Your task to perform on an android device: Open the map Image 0: 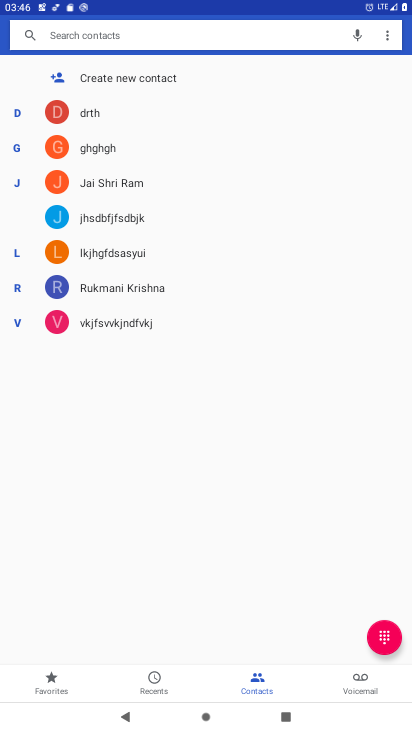
Step 0: press home button
Your task to perform on an android device: Open the map Image 1: 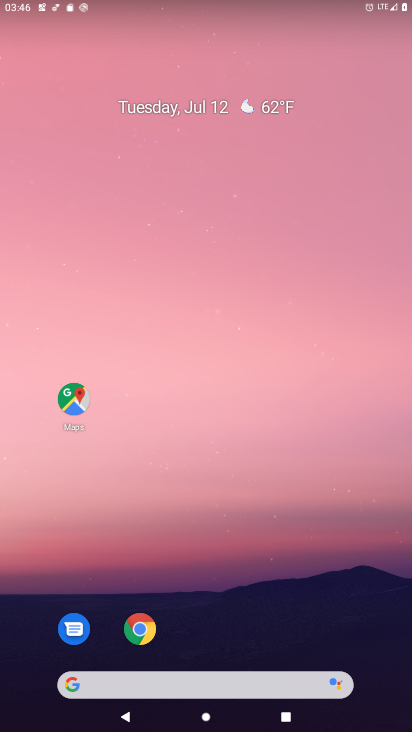
Step 1: drag from (201, 660) to (160, 51)
Your task to perform on an android device: Open the map Image 2: 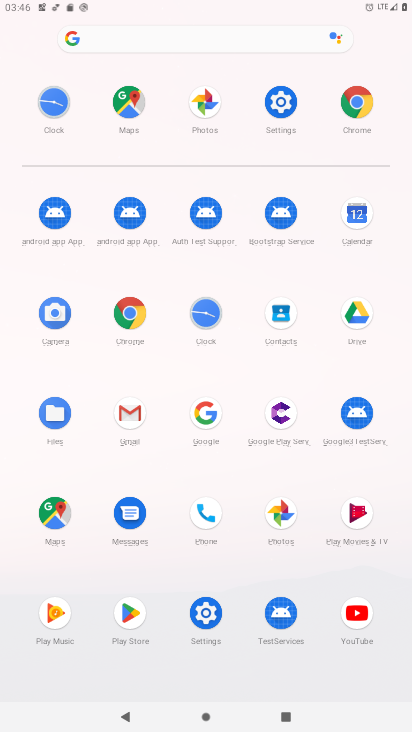
Step 2: click (8, 510)
Your task to perform on an android device: Open the map Image 3: 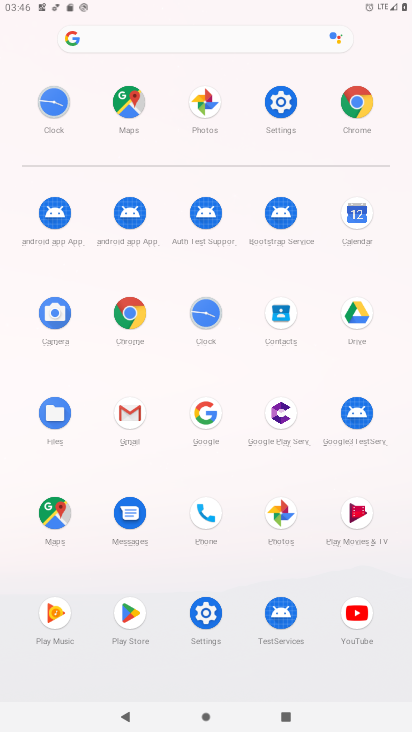
Step 3: click (60, 511)
Your task to perform on an android device: Open the map Image 4: 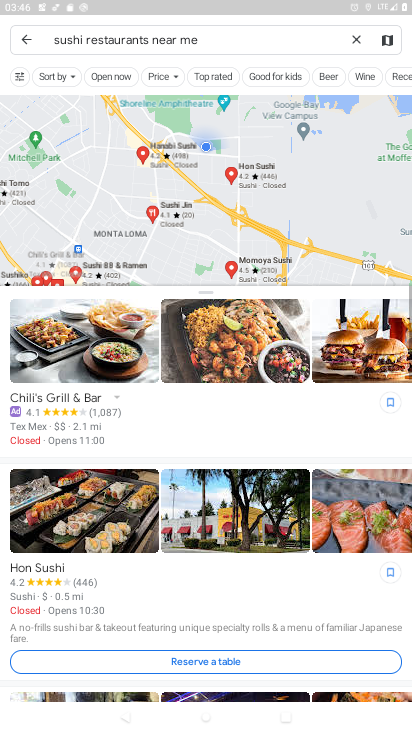
Step 4: click (31, 42)
Your task to perform on an android device: Open the map Image 5: 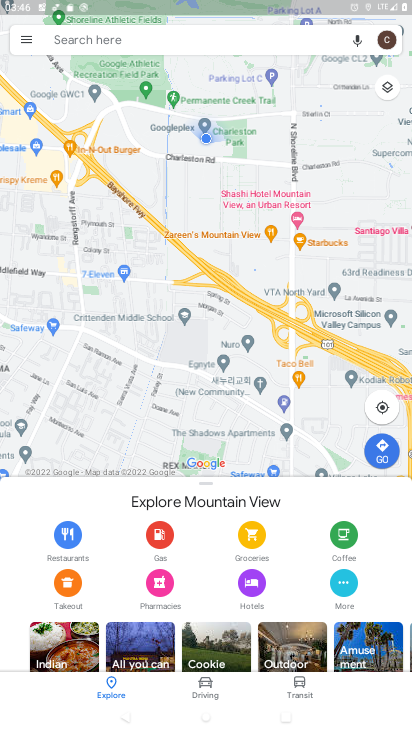
Step 5: task complete